Your task to perform on an android device: Show me popular videos on Youtube Image 0: 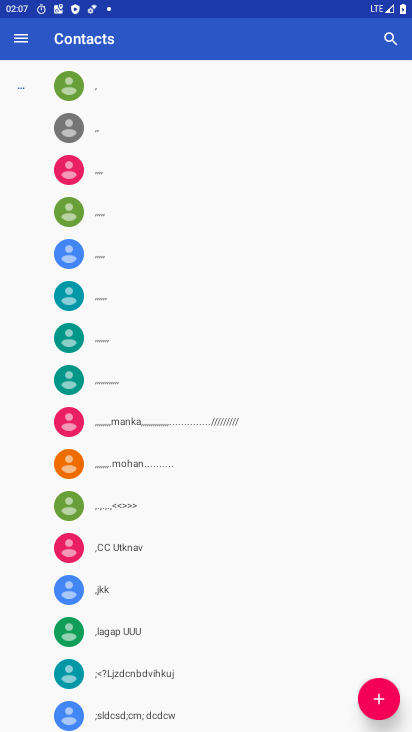
Step 0: press home button
Your task to perform on an android device: Show me popular videos on Youtube Image 1: 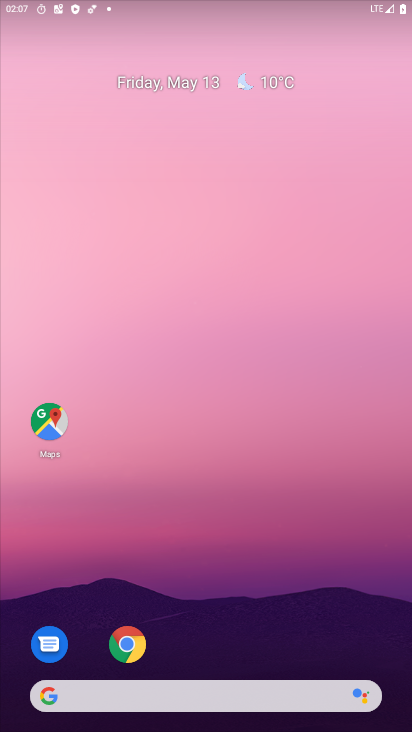
Step 1: drag from (312, 700) to (310, 68)
Your task to perform on an android device: Show me popular videos on Youtube Image 2: 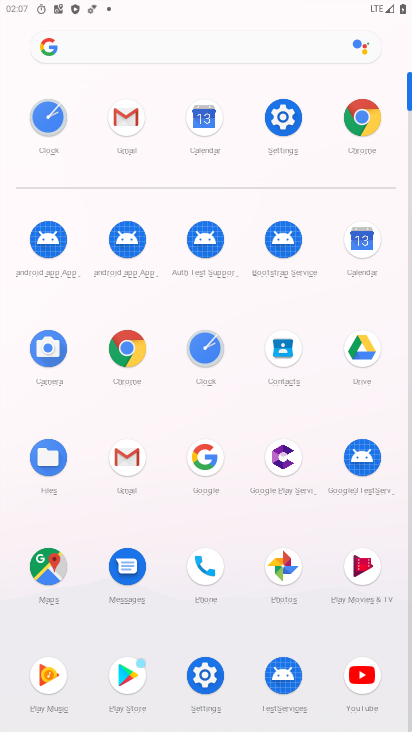
Step 2: click (367, 680)
Your task to perform on an android device: Show me popular videos on Youtube Image 3: 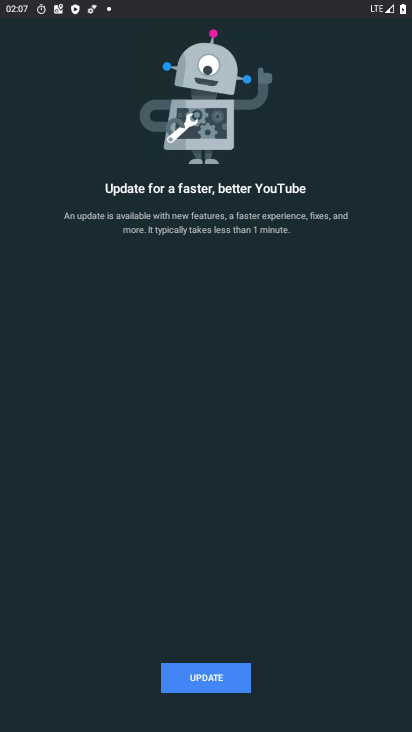
Step 3: drag from (367, 680) to (221, 680)
Your task to perform on an android device: Show me popular videos on Youtube Image 4: 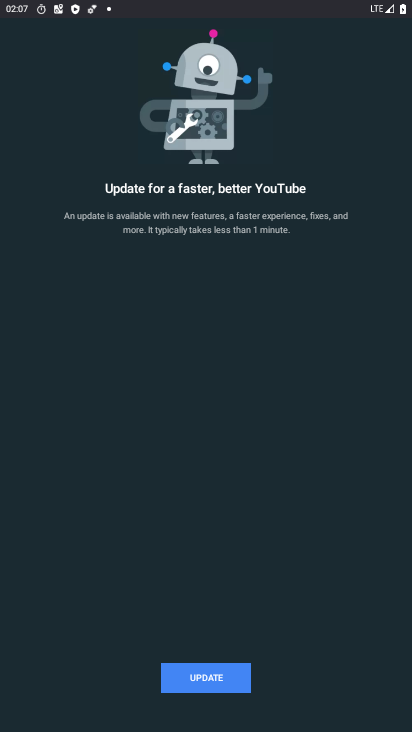
Step 4: click (221, 680)
Your task to perform on an android device: Show me popular videos on Youtube Image 5: 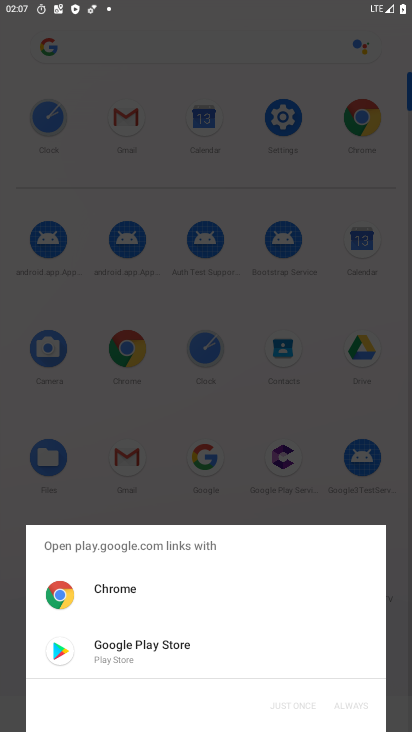
Step 5: click (325, 660)
Your task to perform on an android device: Show me popular videos on Youtube Image 6: 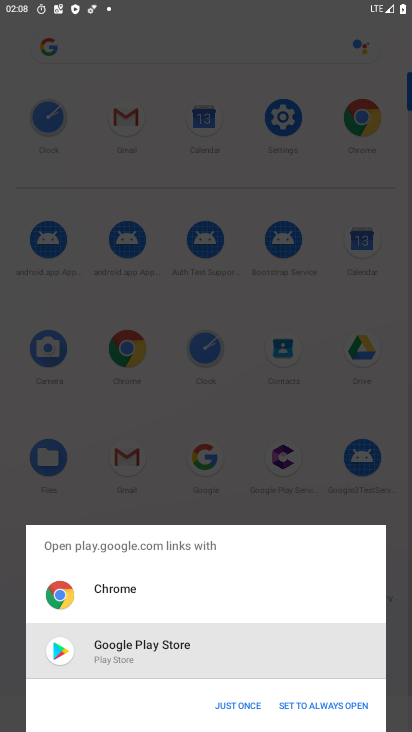
Step 6: click (248, 700)
Your task to perform on an android device: Show me popular videos on Youtube Image 7: 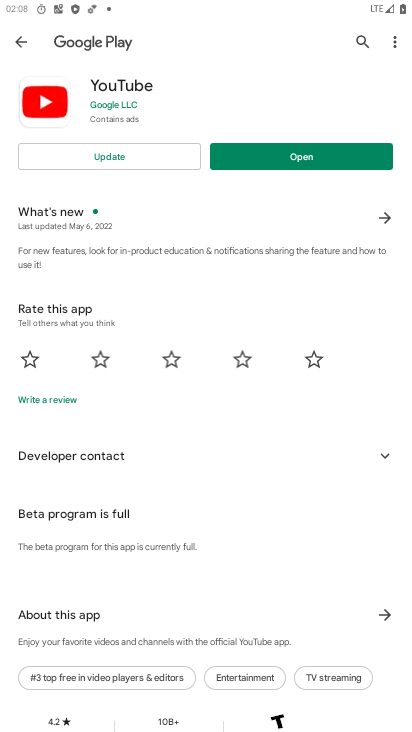
Step 7: click (143, 159)
Your task to perform on an android device: Show me popular videos on Youtube Image 8: 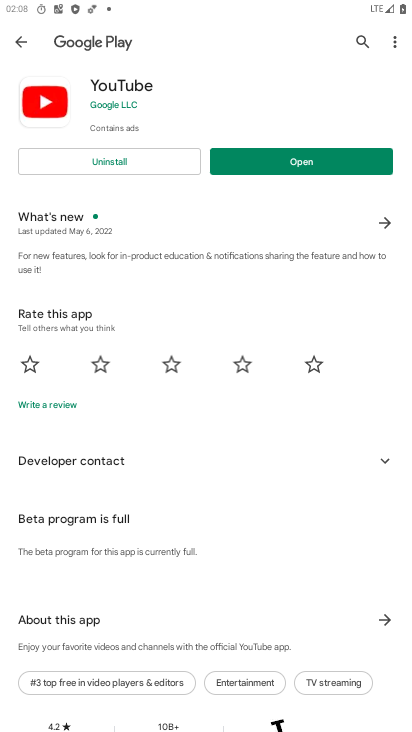
Step 8: click (320, 165)
Your task to perform on an android device: Show me popular videos on Youtube Image 9: 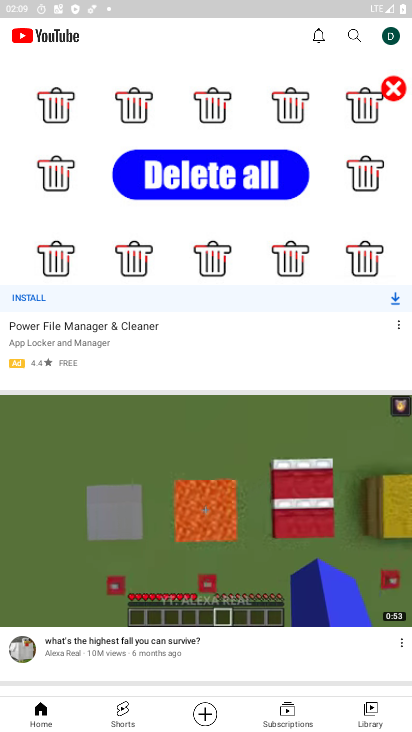
Step 9: drag from (284, 609) to (291, 191)
Your task to perform on an android device: Show me popular videos on Youtube Image 10: 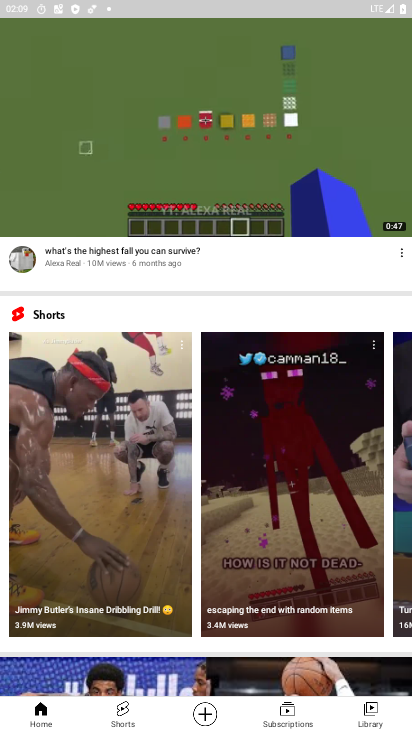
Step 10: click (377, 719)
Your task to perform on an android device: Show me popular videos on Youtube Image 11: 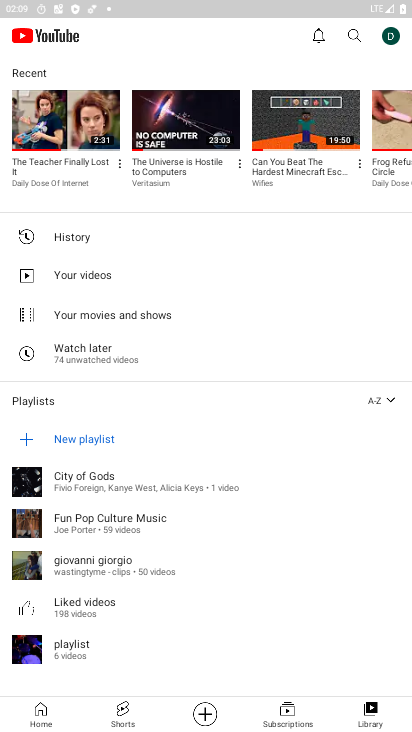
Step 11: drag from (150, 375) to (155, 227)
Your task to perform on an android device: Show me popular videos on Youtube Image 12: 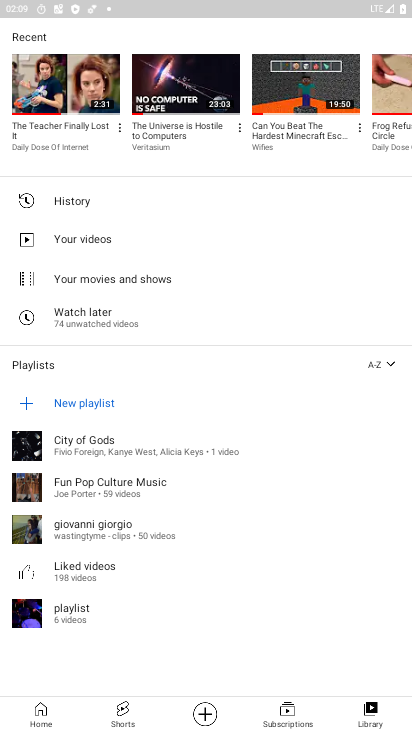
Step 12: drag from (109, 254) to (157, 654)
Your task to perform on an android device: Show me popular videos on Youtube Image 13: 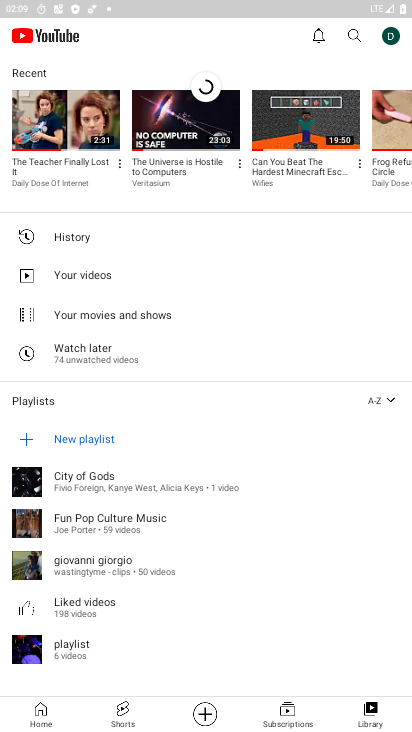
Step 13: click (44, 719)
Your task to perform on an android device: Show me popular videos on Youtube Image 14: 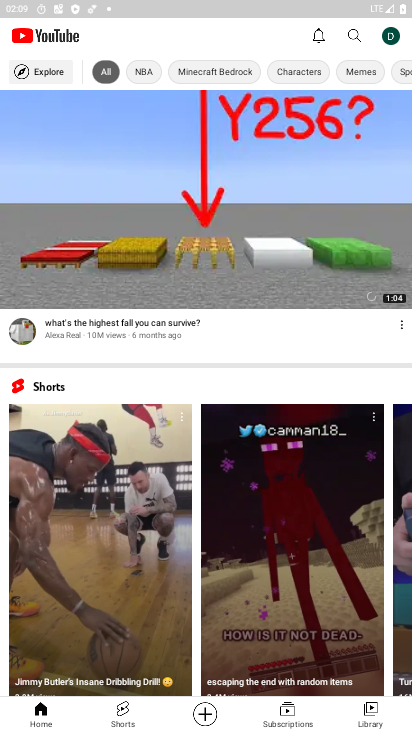
Step 14: task complete